Your task to perform on an android device: turn on improve location accuracy Image 0: 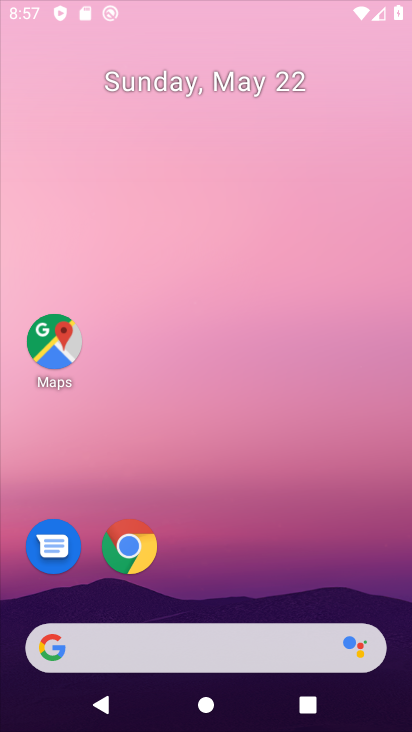
Step 0: click (274, 77)
Your task to perform on an android device: turn on improve location accuracy Image 1: 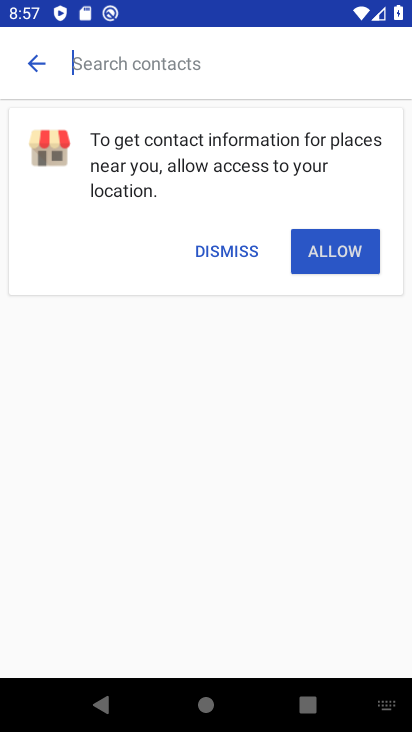
Step 1: press home button
Your task to perform on an android device: turn on improve location accuracy Image 2: 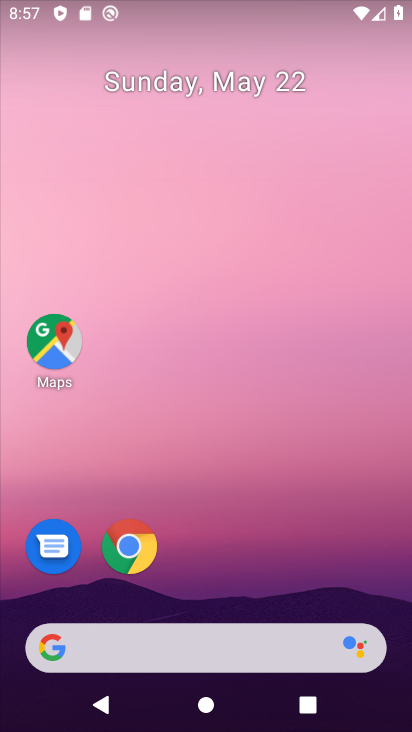
Step 2: drag from (177, 574) to (260, 49)
Your task to perform on an android device: turn on improve location accuracy Image 3: 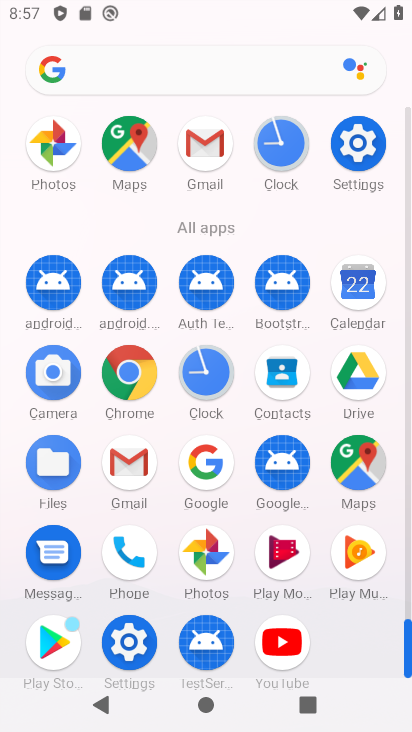
Step 3: click (346, 146)
Your task to perform on an android device: turn on improve location accuracy Image 4: 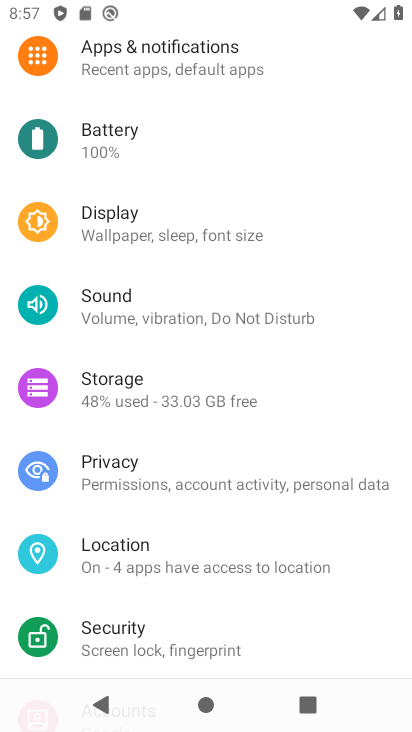
Step 4: click (122, 554)
Your task to perform on an android device: turn on improve location accuracy Image 5: 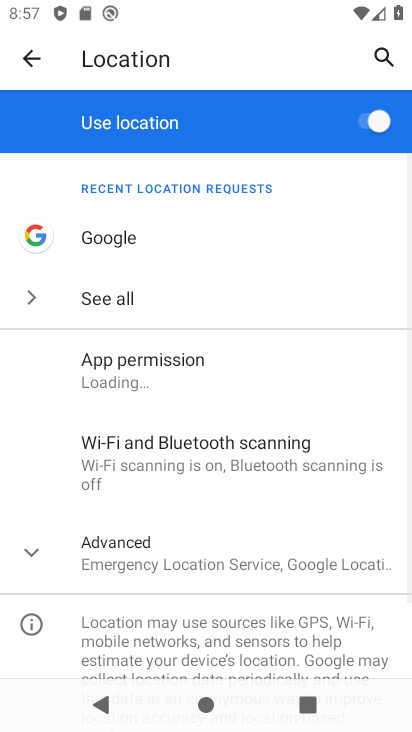
Step 5: click (123, 545)
Your task to perform on an android device: turn on improve location accuracy Image 6: 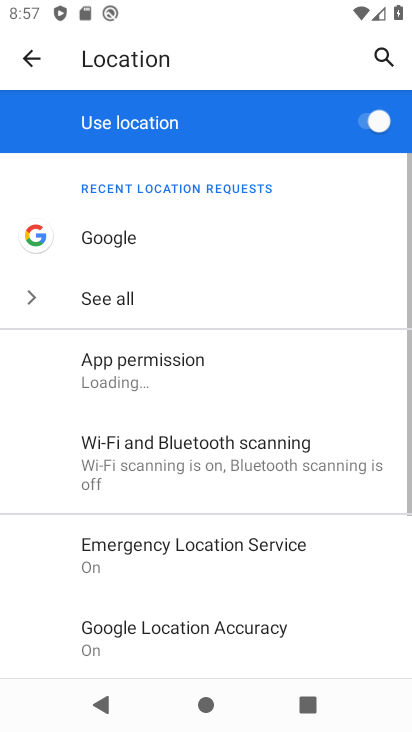
Step 6: drag from (124, 545) to (210, 220)
Your task to perform on an android device: turn on improve location accuracy Image 7: 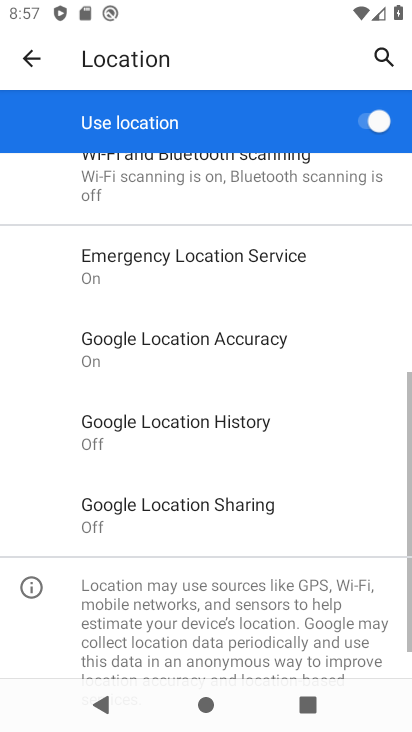
Step 7: click (140, 356)
Your task to perform on an android device: turn on improve location accuracy Image 8: 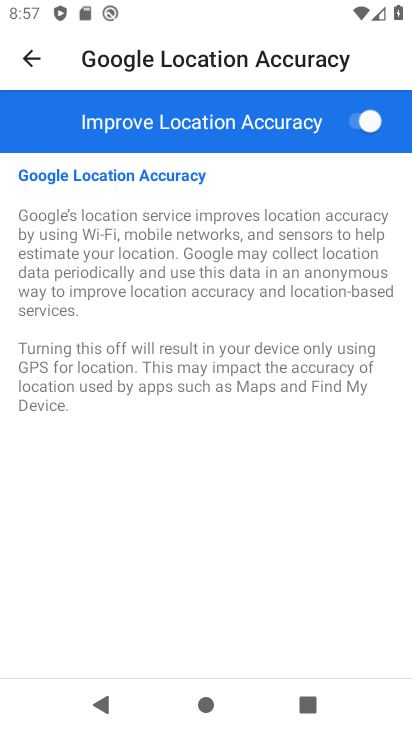
Step 8: task complete